Your task to perform on an android device: find snoozed emails in the gmail app Image 0: 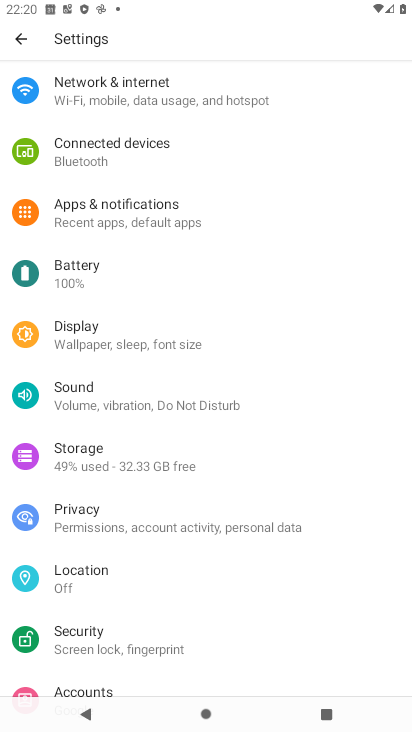
Step 0: press home button
Your task to perform on an android device: find snoozed emails in the gmail app Image 1: 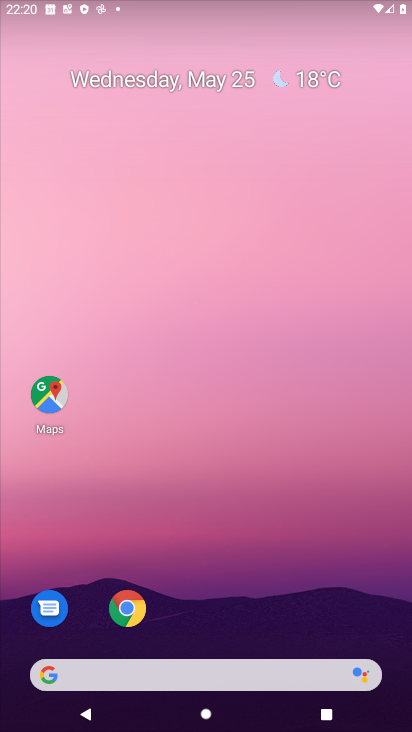
Step 1: drag from (281, 568) to (193, 79)
Your task to perform on an android device: find snoozed emails in the gmail app Image 2: 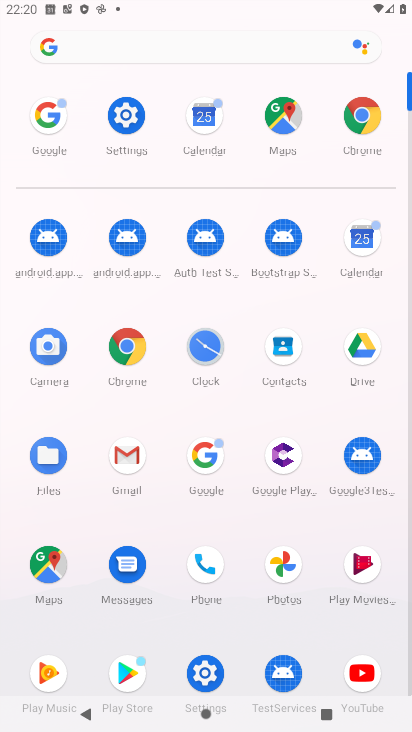
Step 2: click (128, 462)
Your task to perform on an android device: find snoozed emails in the gmail app Image 3: 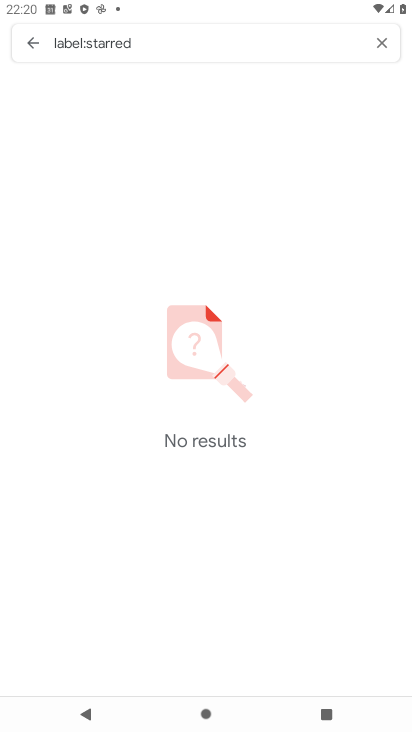
Step 3: click (28, 44)
Your task to perform on an android device: find snoozed emails in the gmail app Image 4: 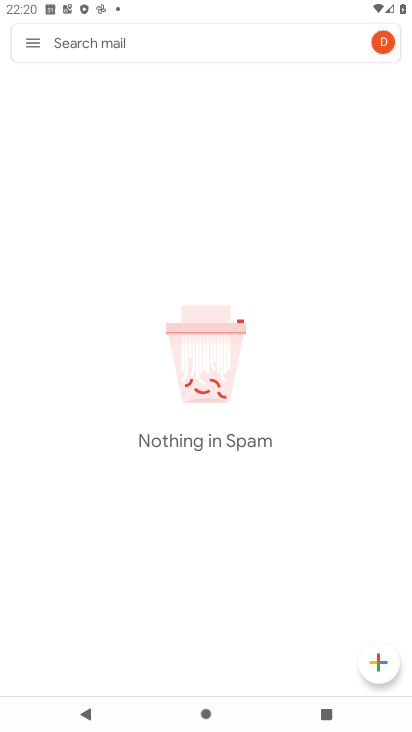
Step 4: click (35, 41)
Your task to perform on an android device: find snoozed emails in the gmail app Image 5: 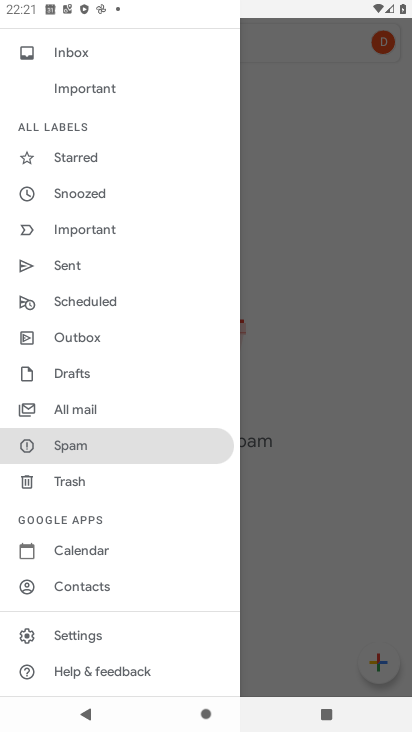
Step 5: click (82, 200)
Your task to perform on an android device: find snoozed emails in the gmail app Image 6: 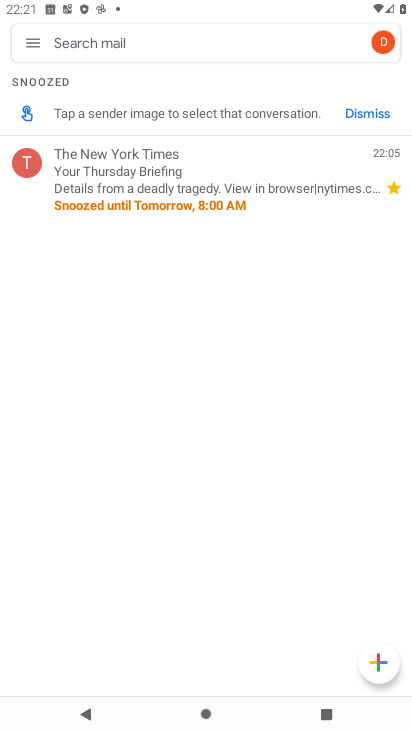
Step 6: task complete